Your task to perform on an android device: Go to notification settings Image 0: 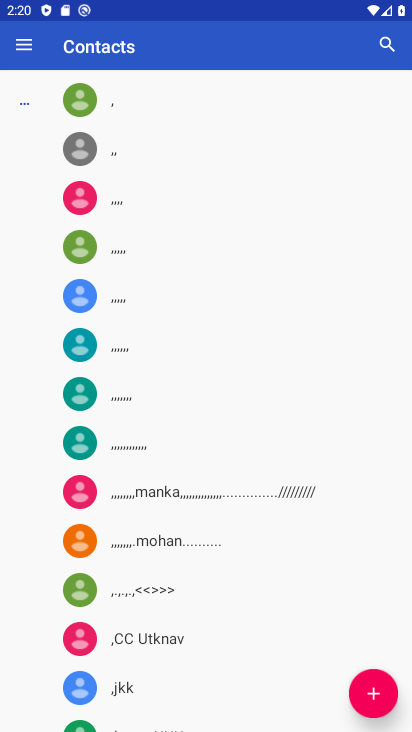
Step 0: press home button
Your task to perform on an android device: Go to notification settings Image 1: 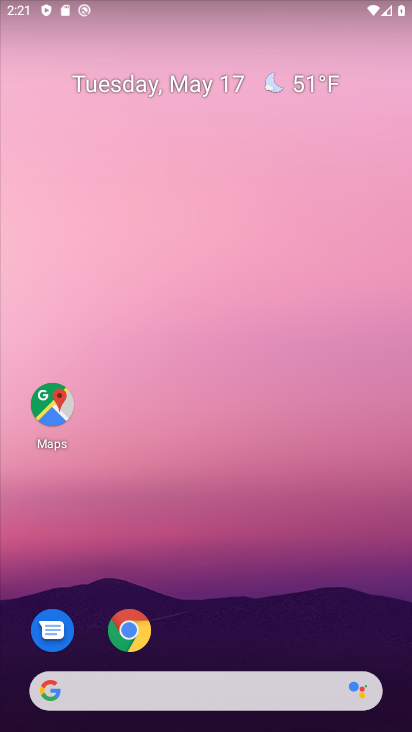
Step 1: drag from (215, 622) to (301, 35)
Your task to perform on an android device: Go to notification settings Image 2: 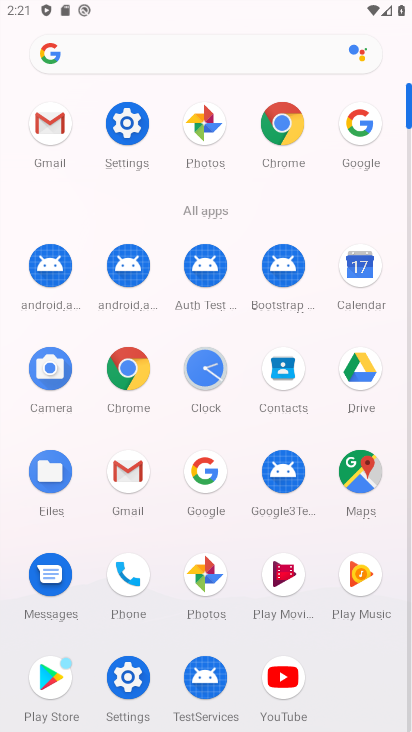
Step 2: click (131, 185)
Your task to perform on an android device: Go to notification settings Image 3: 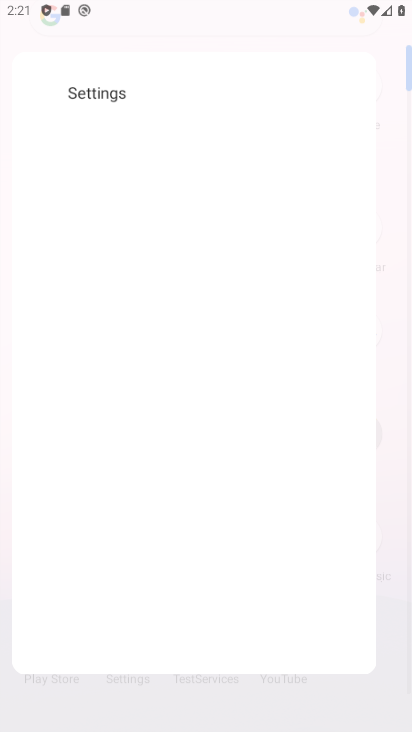
Step 3: click (134, 169)
Your task to perform on an android device: Go to notification settings Image 4: 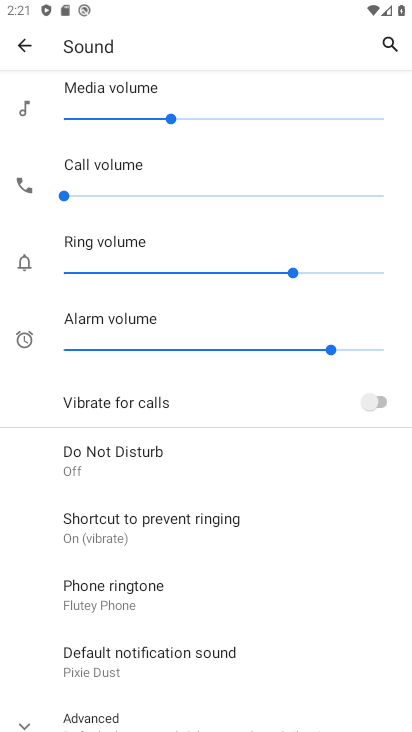
Step 4: click (25, 40)
Your task to perform on an android device: Go to notification settings Image 5: 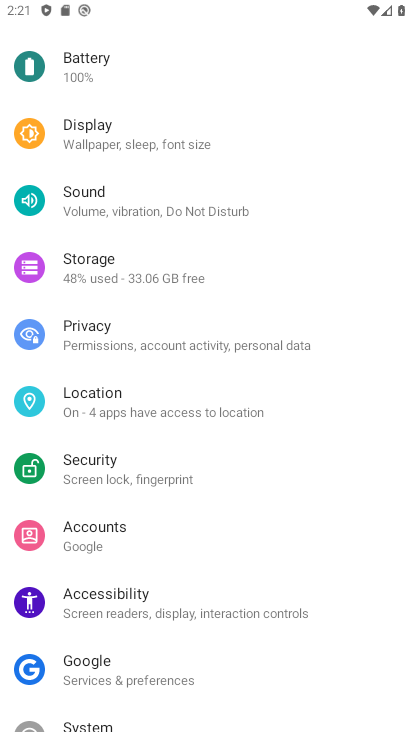
Step 5: drag from (165, 176) to (141, 422)
Your task to perform on an android device: Go to notification settings Image 6: 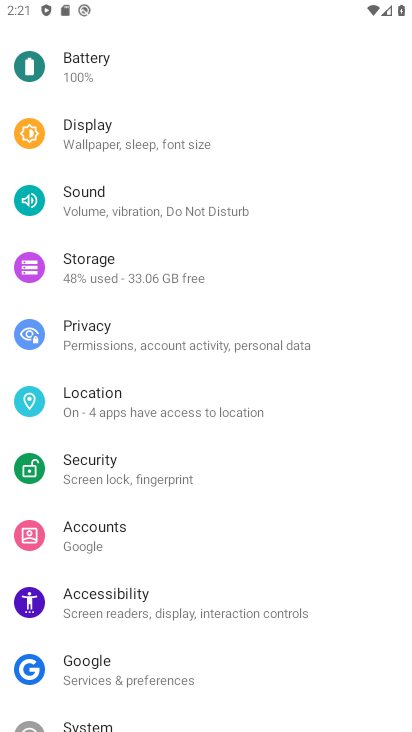
Step 6: drag from (149, 238) to (146, 428)
Your task to perform on an android device: Go to notification settings Image 7: 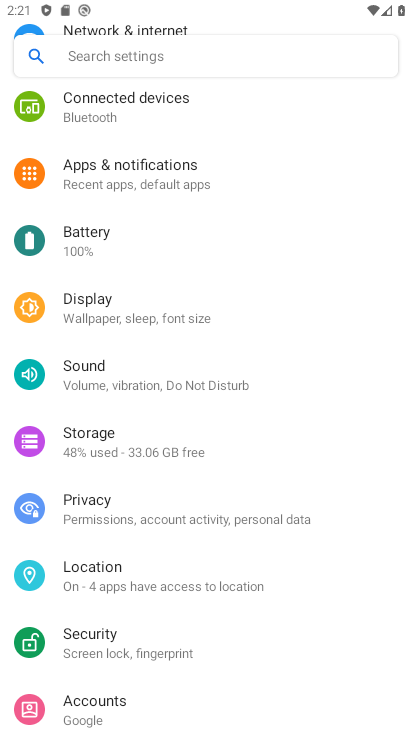
Step 7: click (164, 190)
Your task to perform on an android device: Go to notification settings Image 8: 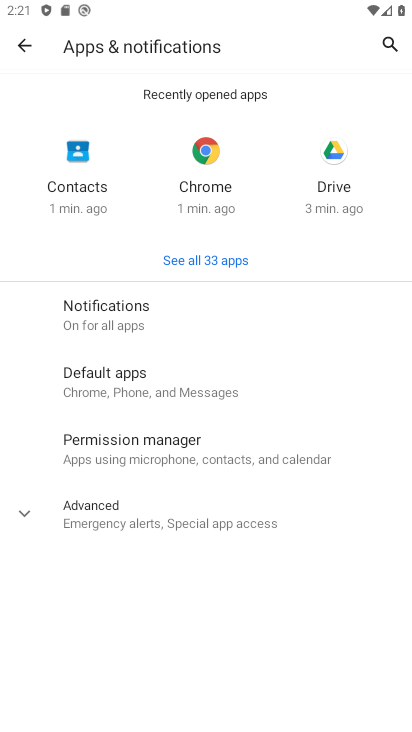
Step 8: click (119, 329)
Your task to perform on an android device: Go to notification settings Image 9: 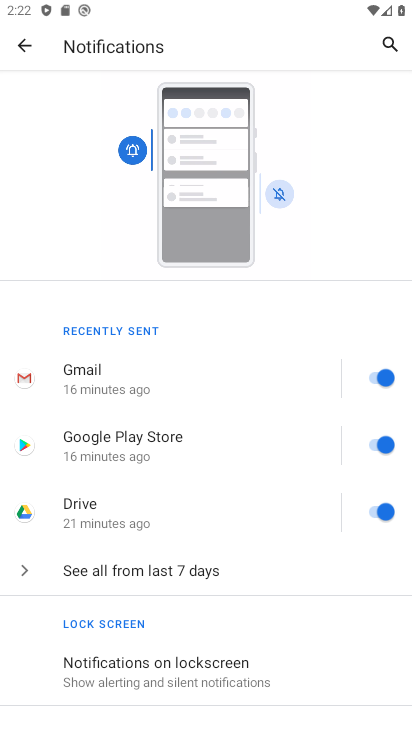
Step 9: task complete